Your task to perform on an android device: set the timer Image 0: 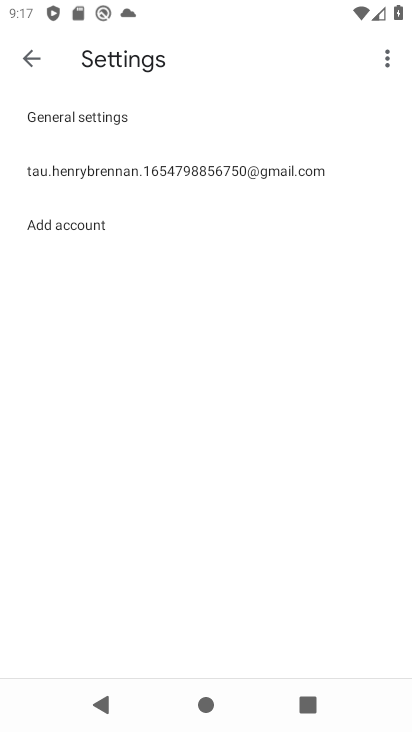
Step 0: press home button
Your task to perform on an android device: set the timer Image 1: 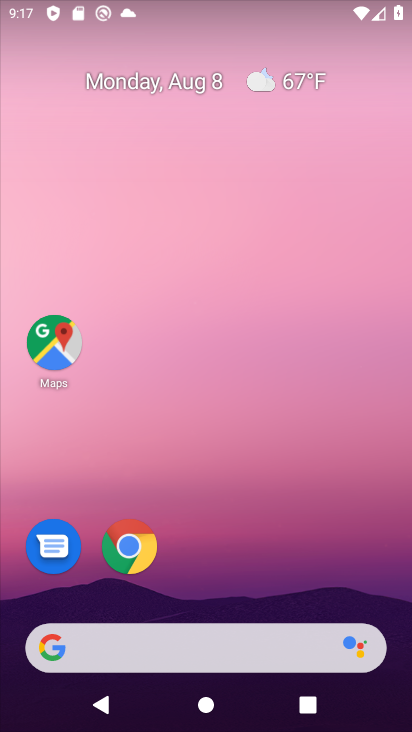
Step 1: drag from (225, 484) to (240, 133)
Your task to perform on an android device: set the timer Image 2: 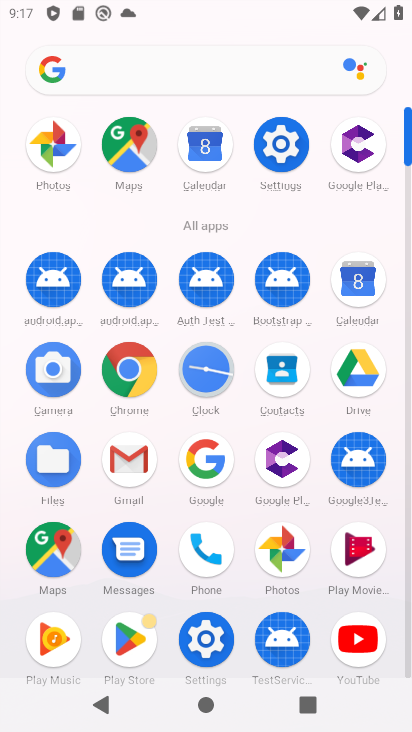
Step 2: click (206, 377)
Your task to perform on an android device: set the timer Image 3: 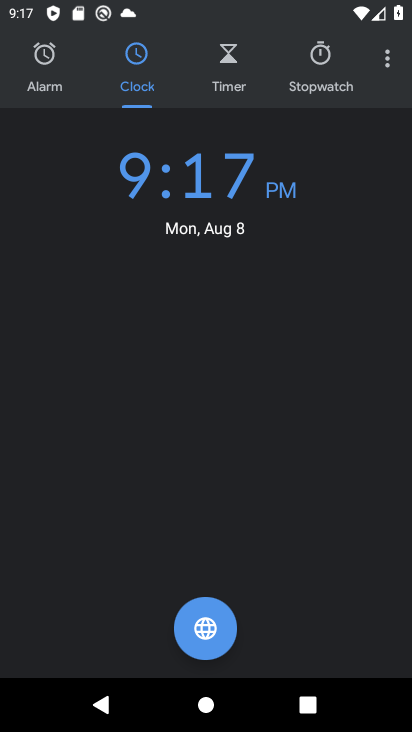
Step 3: task complete